Your task to perform on an android device: turn off smart reply in the gmail app Image 0: 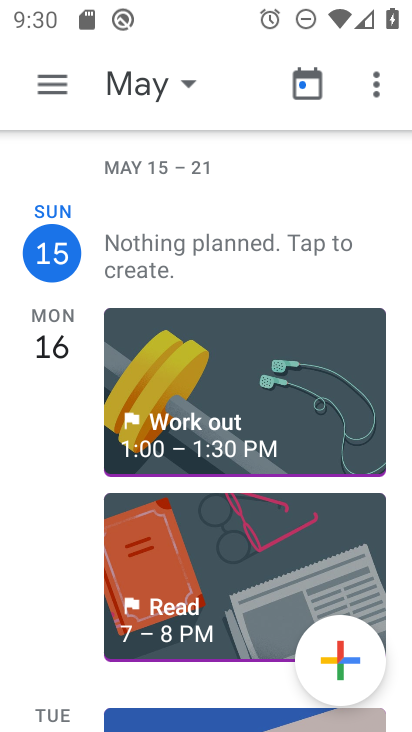
Step 0: press home button
Your task to perform on an android device: turn off smart reply in the gmail app Image 1: 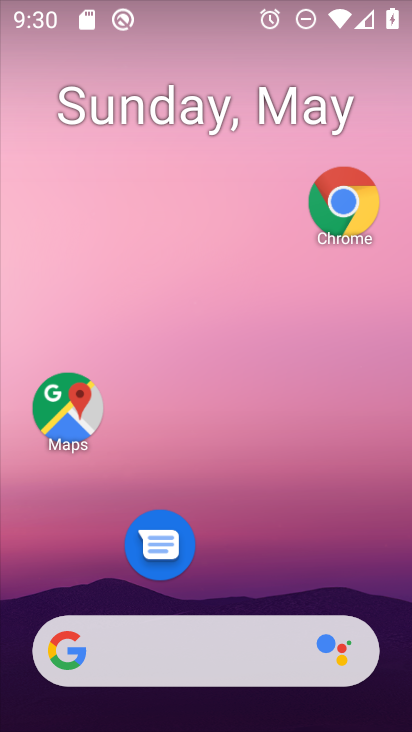
Step 1: drag from (279, 558) to (262, 87)
Your task to perform on an android device: turn off smart reply in the gmail app Image 2: 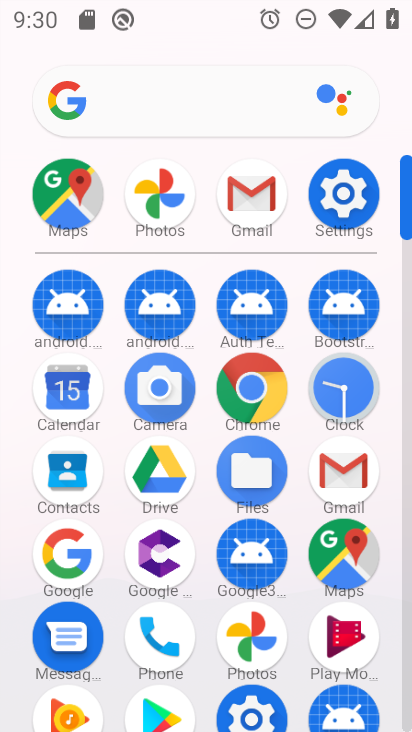
Step 2: click (266, 187)
Your task to perform on an android device: turn off smart reply in the gmail app Image 3: 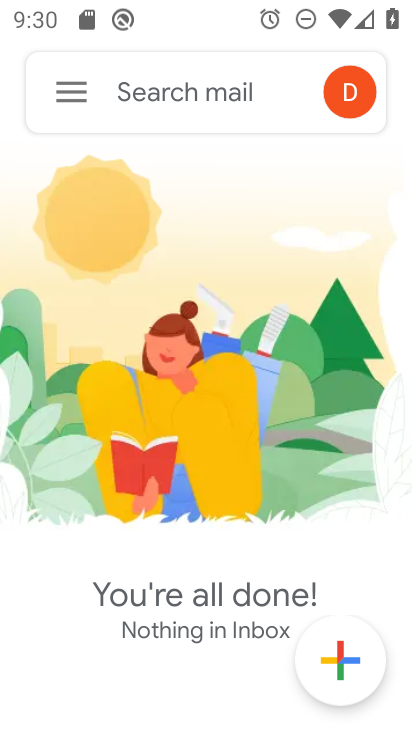
Step 3: click (53, 92)
Your task to perform on an android device: turn off smart reply in the gmail app Image 4: 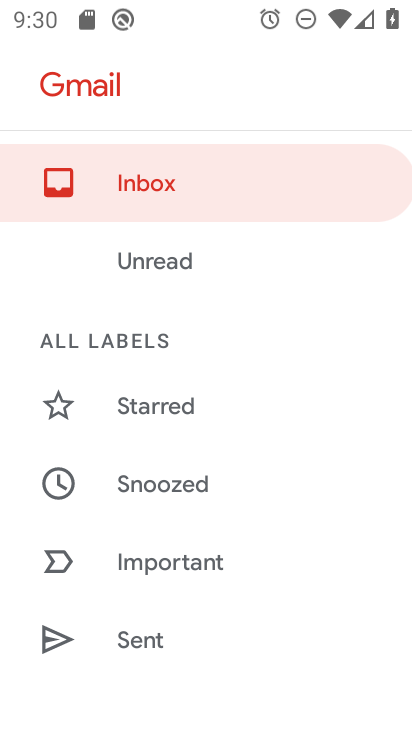
Step 4: drag from (191, 615) to (188, 330)
Your task to perform on an android device: turn off smart reply in the gmail app Image 5: 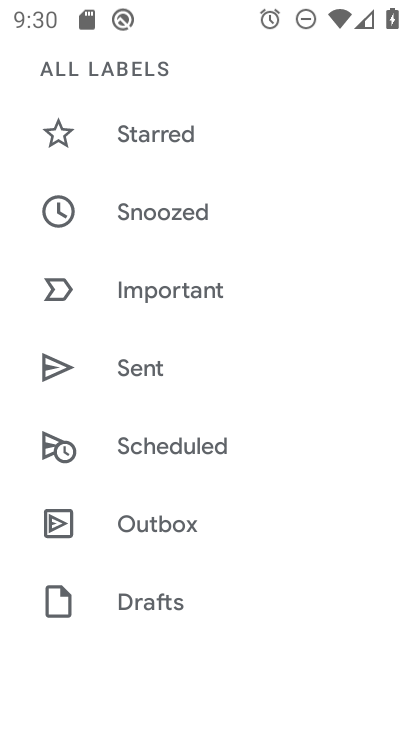
Step 5: drag from (215, 623) to (216, 328)
Your task to perform on an android device: turn off smart reply in the gmail app Image 6: 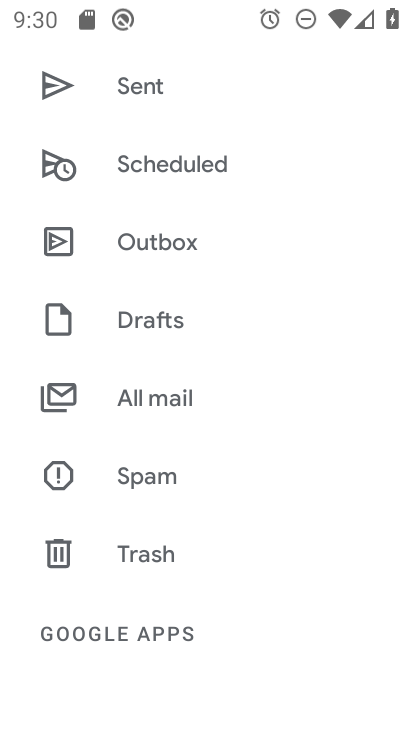
Step 6: drag from (195, 625) to (197, 350)
Your task to perform on an android device: turn off smart reply in the gmail app Image 7: 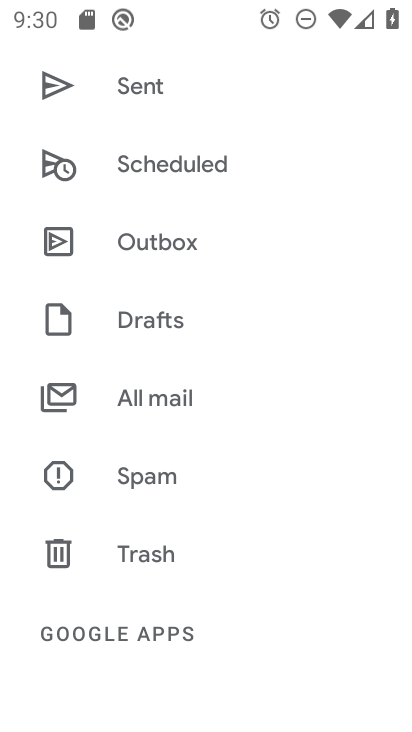
Step 7: drag from (202, 646) to (271, 354)
Your task to perform on an android device: turn off smart reply in the gmail app Image 8: 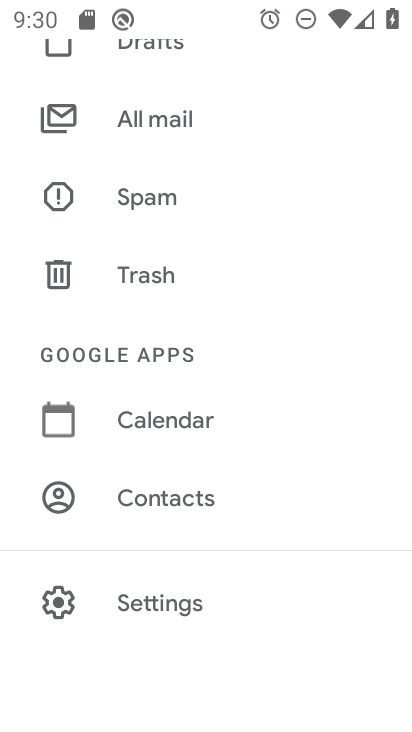
Step 8: click (169, 600)
Your task to perform on an android device: turn off smart reply in the gmail app Image 9: 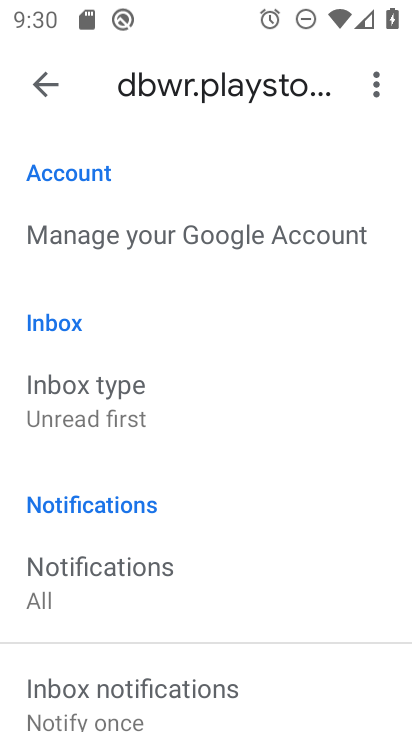
Step 9: drag from (154, 643) to (167, 347)
Your task to perform on an android device: turn off smart reply in the gmail app Image 10: 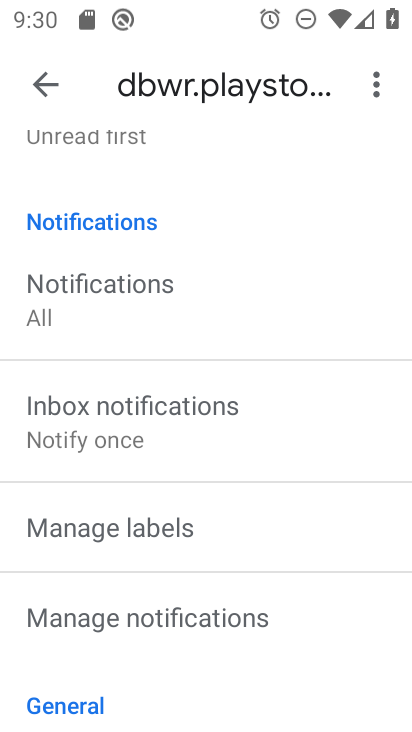
Step 10: drag from (181, 602) to (201, 407)
Your task to perform on an android device: turn off smart reply in the gmail app Image 11: 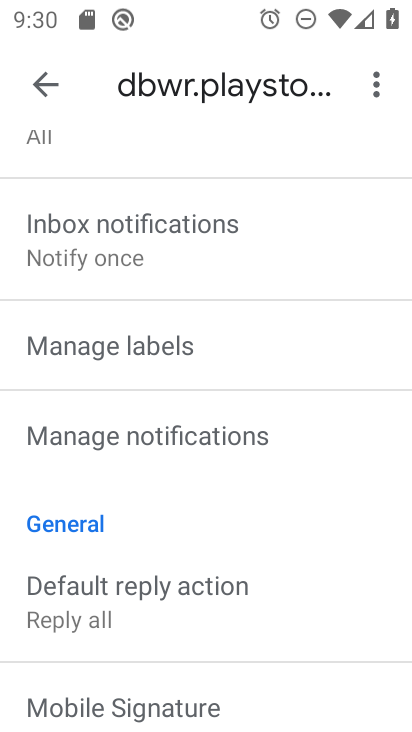
Step 11: drag from (258, 652) to (269, 419)
Your task to perform on an android device: turn off smart reply in the gmail app Image 12: 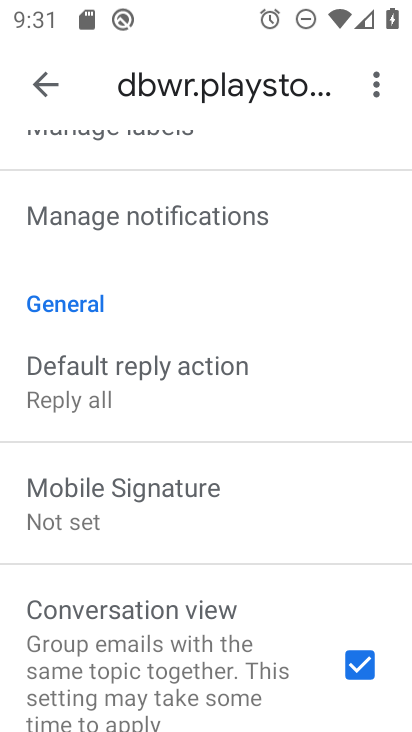
Step 12: drag from (233, 622) to (220, 335)
Your task to perform on an android device: turn off smart reply in the gmail app Image 13: 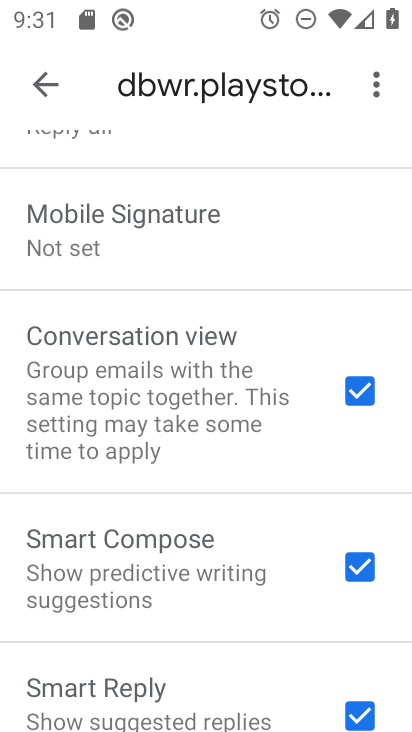
Step 13: drag from (219, 657) to (224, 336)
Your task to perform on an android device: turn off smart reply in the gmail app Image 14: 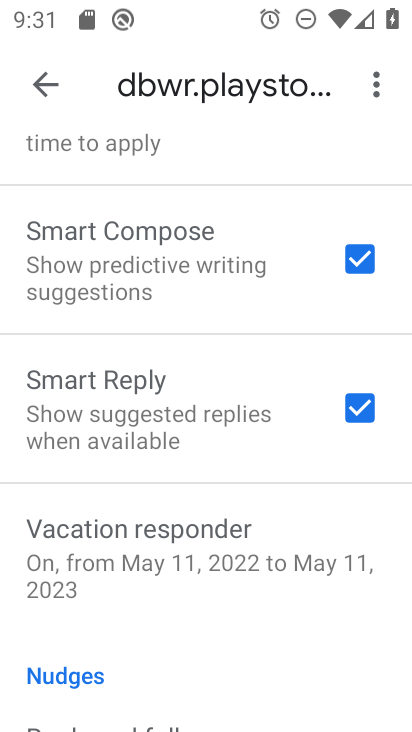
Step 14: click (328, 419)
Your task to perform on an android device: turn off smart reply in the gmail app Image 15: 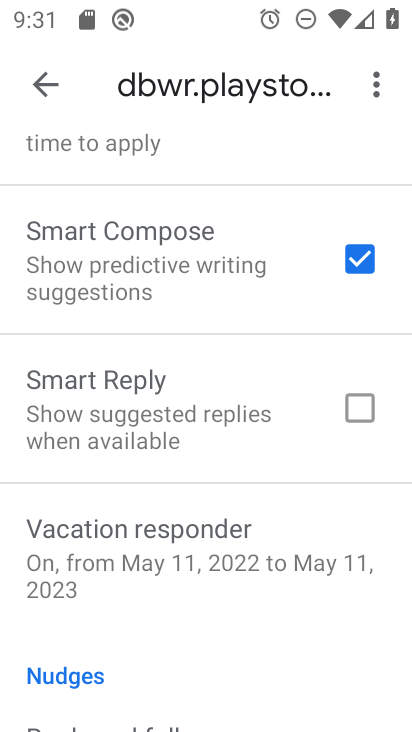
Step 15: task complete